Your task to perform on an android device: Open accessibility settings Image 0: 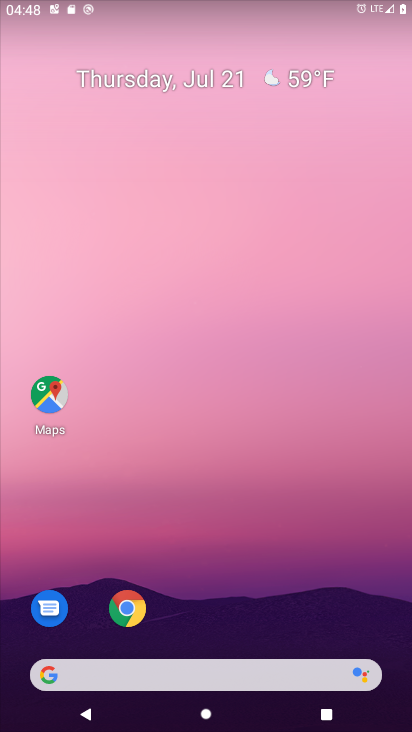
Step 0: drag from (176, 642) to (187, 167)
Your task to perform on an android device: Open accessibility settings Image 1: 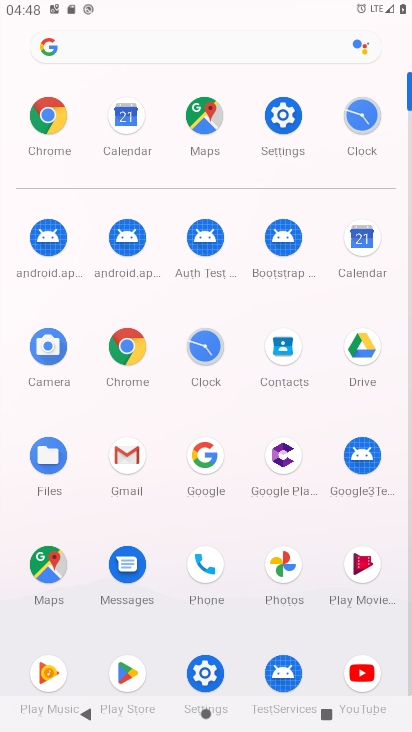
Step 1: click (272, 121)
Your task to perform on an android device: Open accessibility settings Image 2: 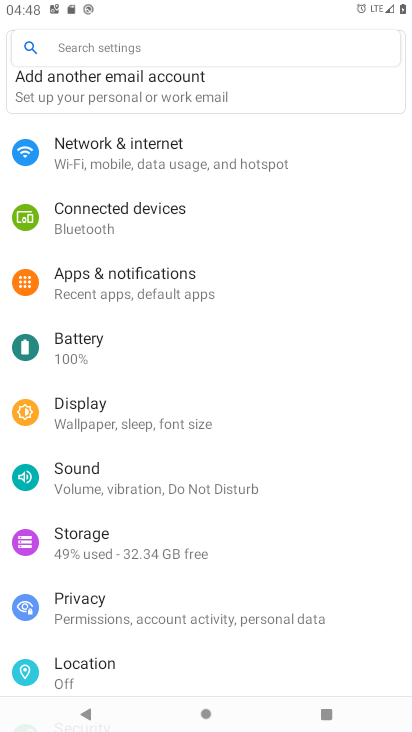
Step 2: drag from (137, 623) to (123, 219)
Your task to perform on an android device: Open accessibility settings Image 3: 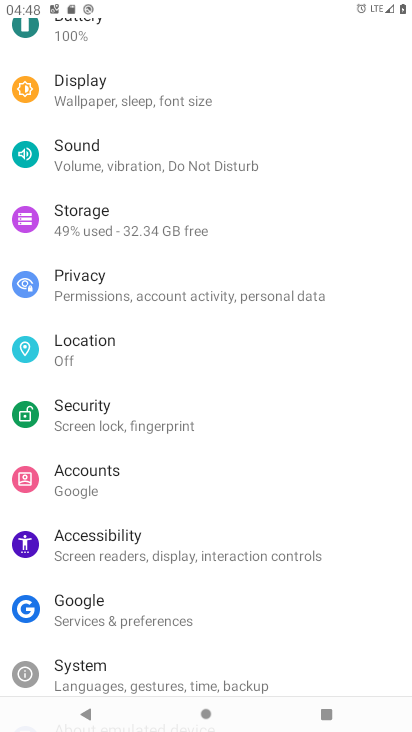
Step 3: click (152, 553)
Your task to perform on an android device: Open accessibility settings Image 4: 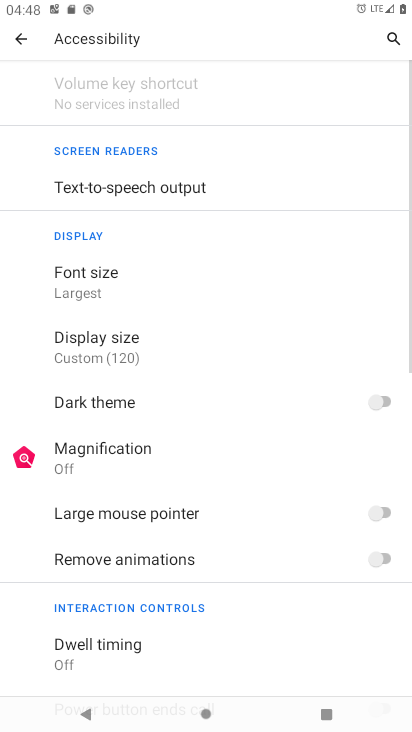
Step 4: task complete